Your task to perform on an android device: What's the weather? Image 0: 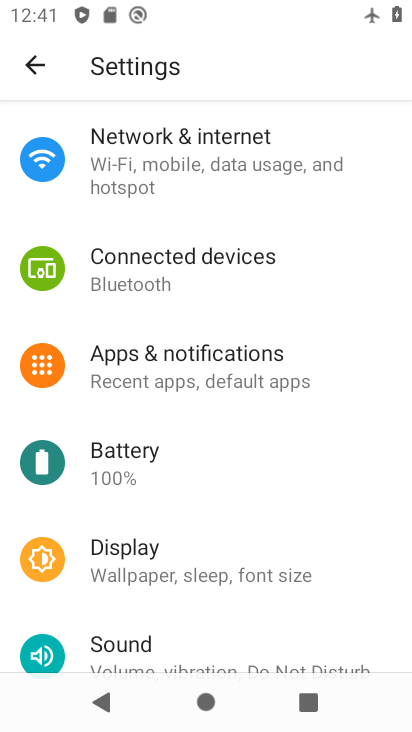
Step 0: press home button
Your task to perform on an android device: What's the weather? Image 1: 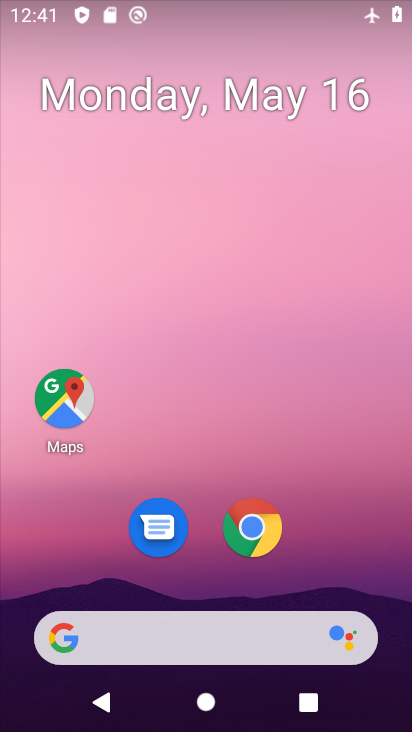
Step 1: click (250, 523)
Your task to perform on an android device: What's the weather? Image 2: 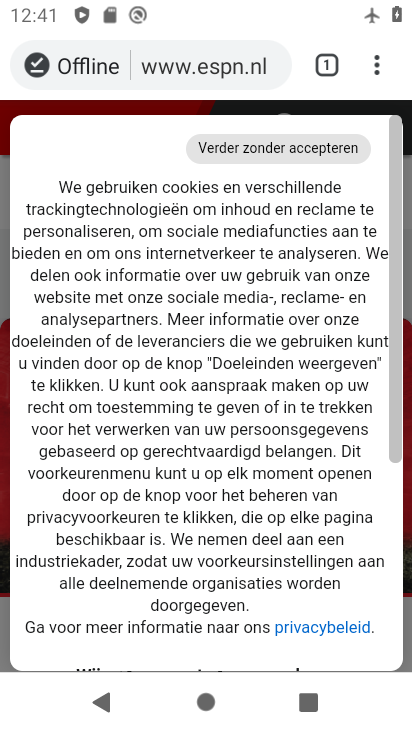
Step 2: click (230, 64)
Your task to perform on an android device: What's the weather? Image 3: 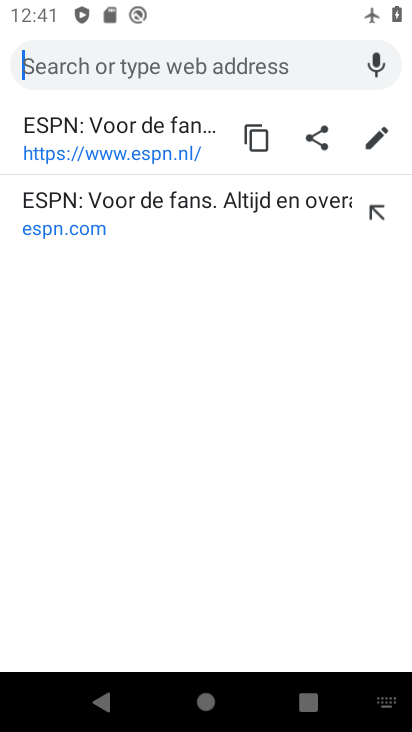
Step 3: type "weather"
Your task to perform on an android device: What's the weather? Image 4: 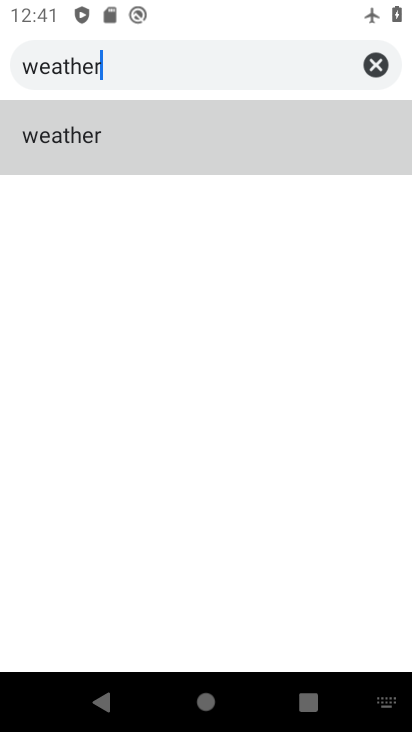
Step 4: click (185, 128)
Your task to perform on an android device: What's the weather? Image 5: 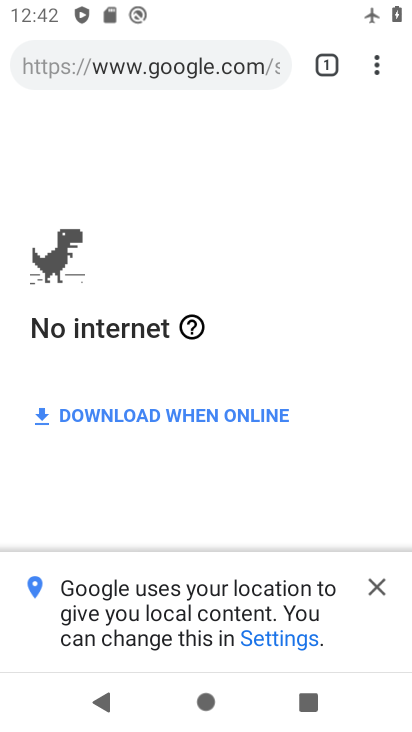
Step 5: task complete